Your task to perform on an android device: Go to ESPN.com Image 0: 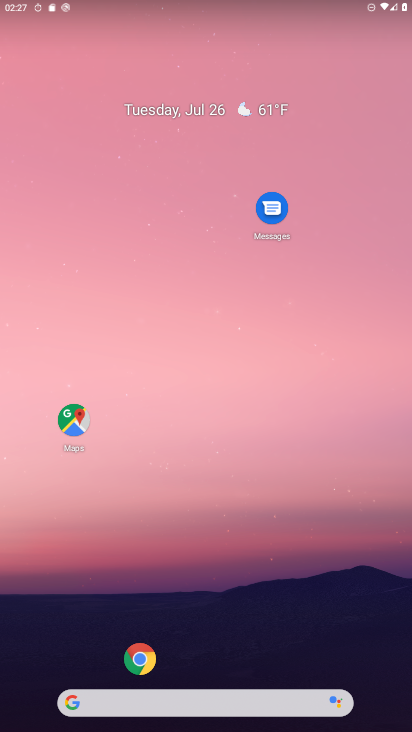
Step 0: click (91, 705)
Your task to perform on an android device: Go to ESPN.com Image 1: 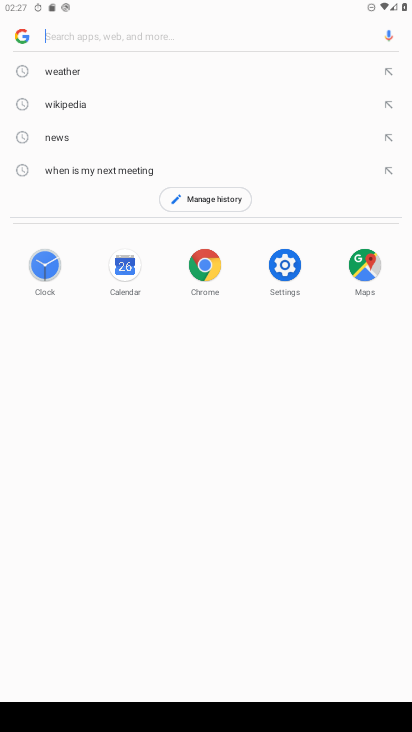
Step 1: type " ESPN.com"
Your task to perform on an android device: Go to ESPN.com Image 2: 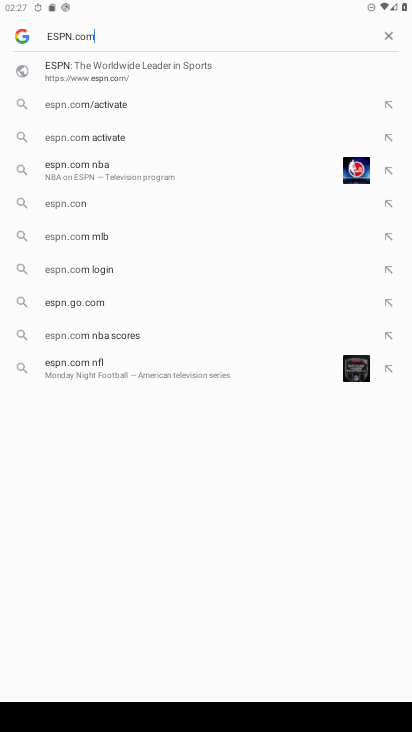
Step 2: type ""
Your task to perform on an android device: Go to ESPN.com Image 3: 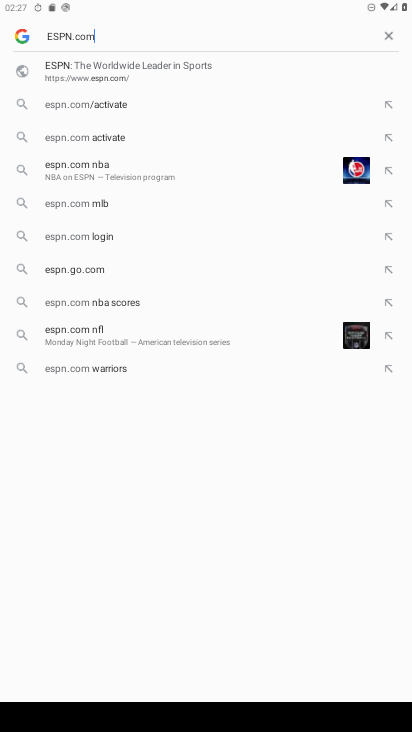
Step 3: type ""
Your task to perform on an android device: Go to ESPN.com Image 4: 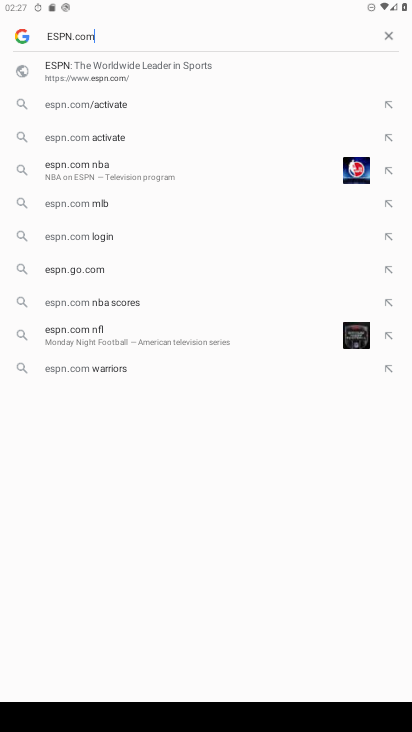
Step 4: type ""
Your task to perform on an android device: Go to ESPN.com Image 5: 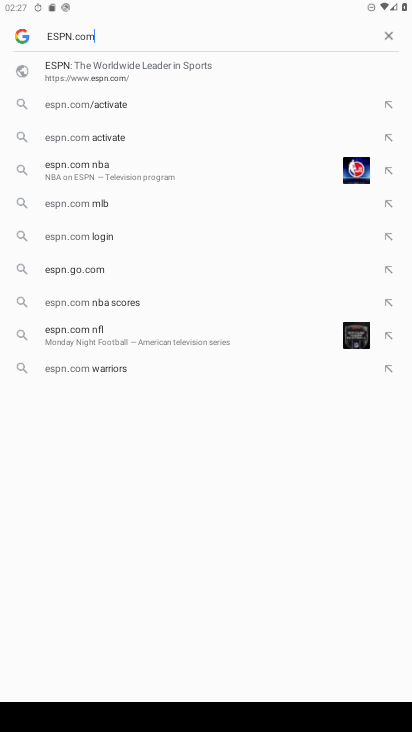
Step 5: click (77, 74)
Your task to perform on an android device: Go to ESPN.com Image 6: 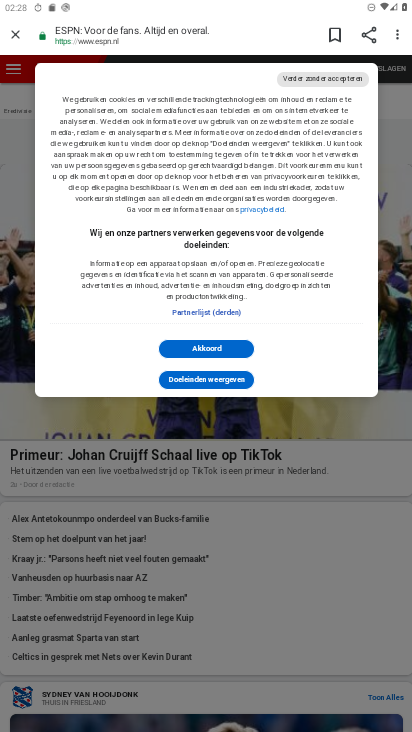
Step 6: task complete